Your task to perform on an android device: turn on data saver in the chrome app Image 0: 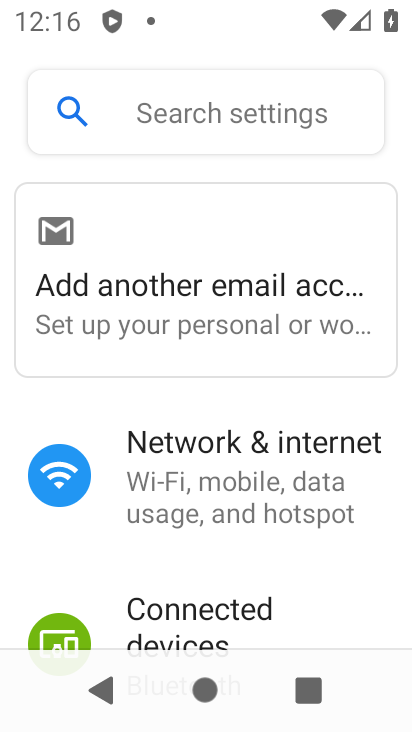
Step 0: press home button
Your task to perform on an android device: turn on data saver in the chrome app Image 1: 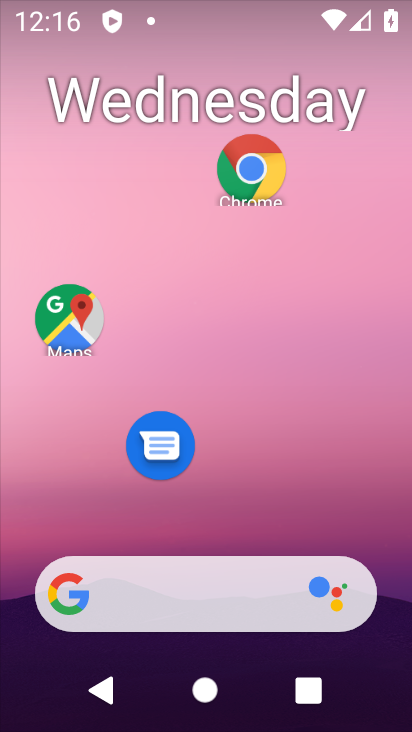
Step 1: drag from (233, 543) to (234, 252)
Your task to perform on an android device: turn on data saver in the chrome app Image 2: 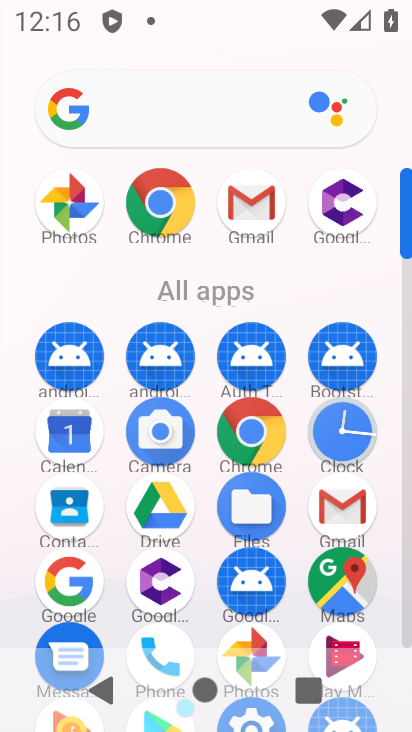
Step 2: click (150, 207)
Your task to perform on an android device: turn on data saver in the chrome app Image 3: 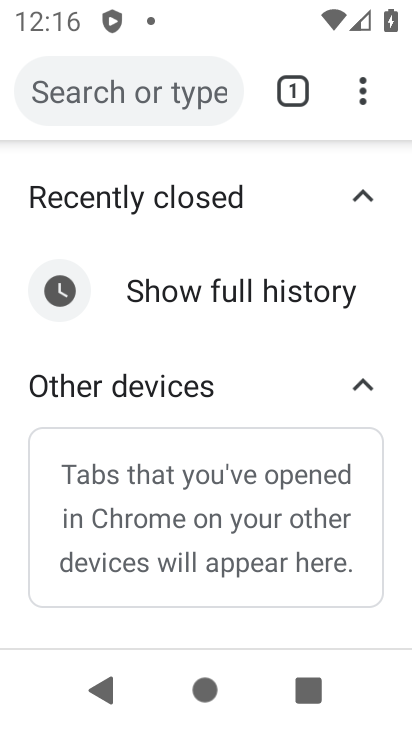
Step 3: click (356, 97)
Your task to perform on an android device: turn on data saver in the chrome app Image 4: 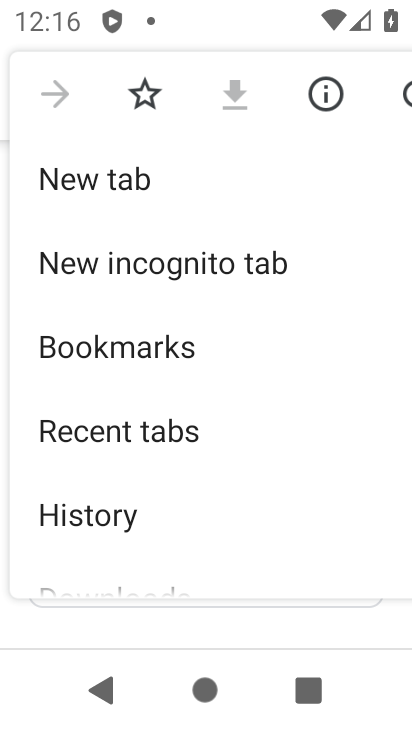
Step 4: drag from (138, 539) to (133, 413)
Your task to perform on an android device: turn on data saver in the chrome app Image 5: 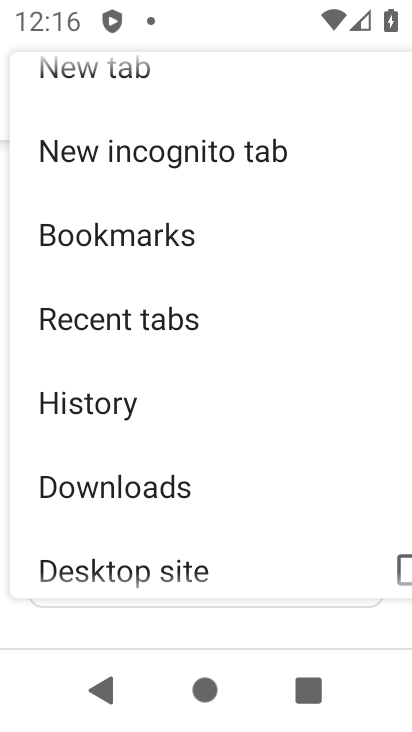
Step 5: drag from (146, 528) to (266, 340)
Your task to perform on an android device: turn on data saver in the chrome app Image 6: 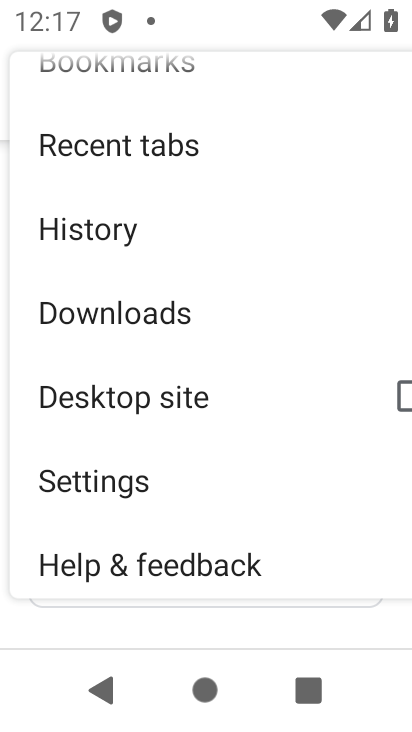
Step 6: click (95, 483)
Your task to perform on an android device: turn on data saver in the chrome app Image 7: 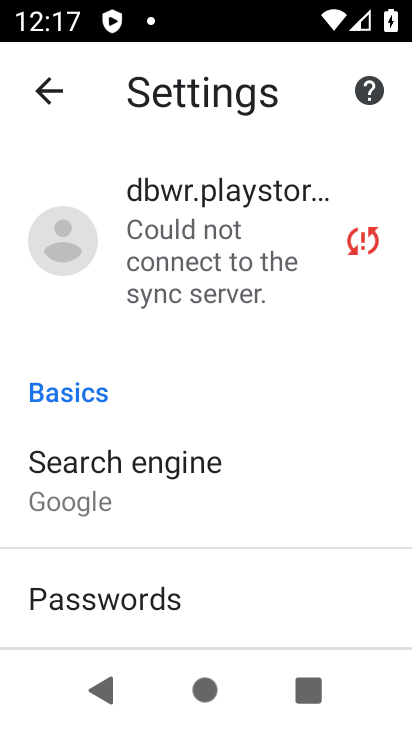
Step 7: drag from (195, 559) to (269, 166)
Your task to perform on an android device: turn on data saver in the chrome app Image 8: 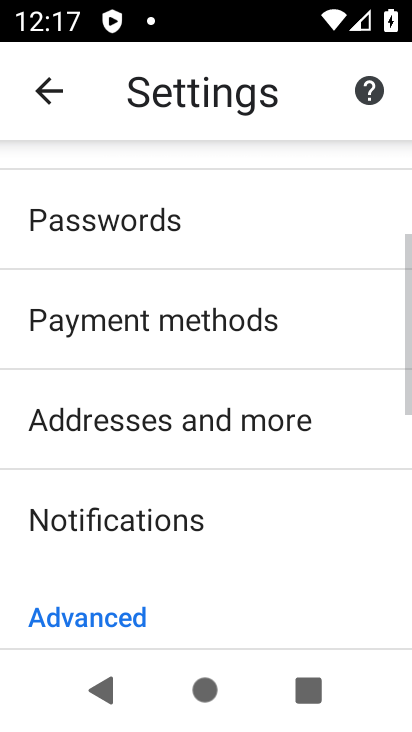
Step 8: drag from (177, 592) to (274, 279)
Your task to perform on an android device: turn on data saver in the chrome app Image 9: 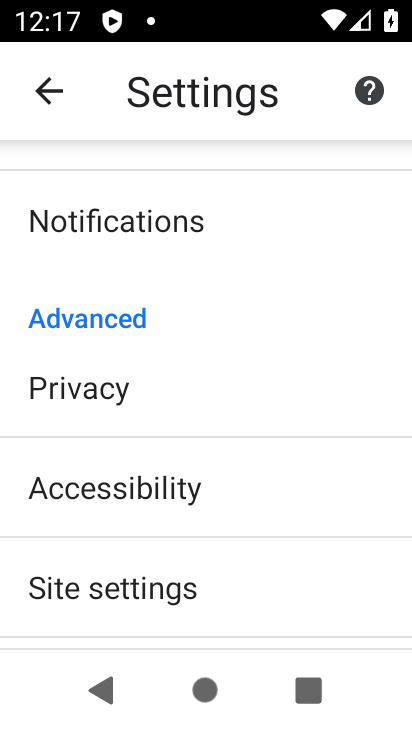
Step 9: drag from (149, 555) to (205, 359)
Your task to perform on an android device: turn on data saver in the chrome app Image 10: 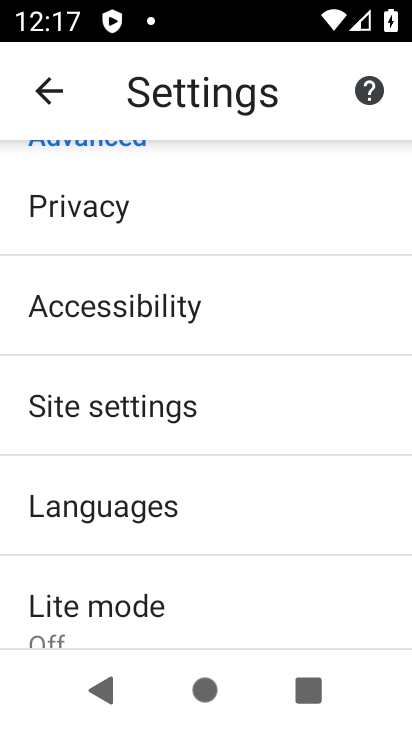
Step 10: drag from (175, 617) to (237, 333)
Your task to perform on an android device: turn on data saver in the chrome app Image 11: 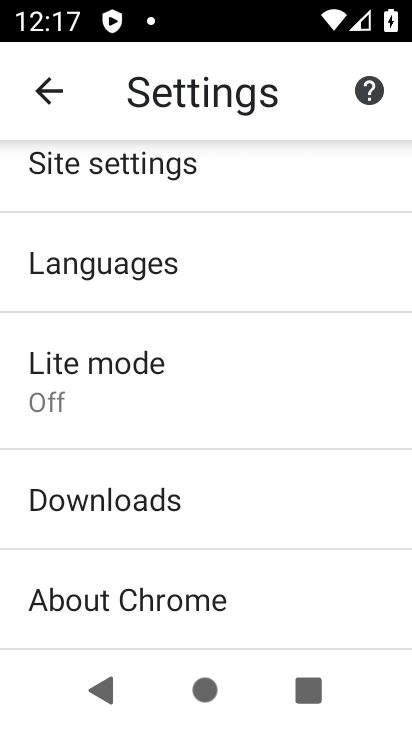
Step 11: click (114, 407)
Your task to perform on an android device: turn on data saver in the chrome app Image 12: 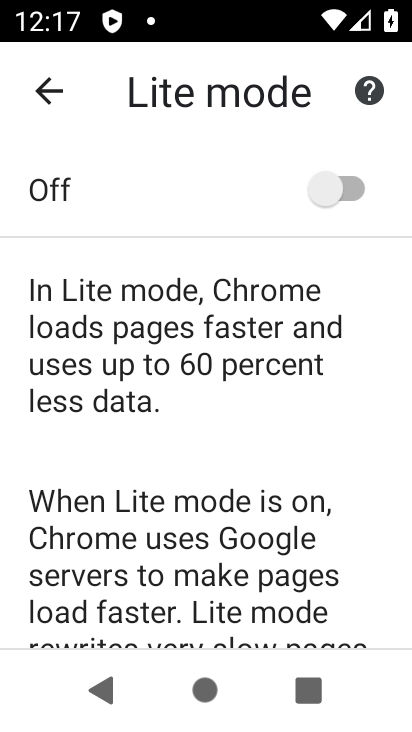
Step 12: click (350, 201)
Your task to perform on an android device: turn on data saver in the chrome app Image 13: 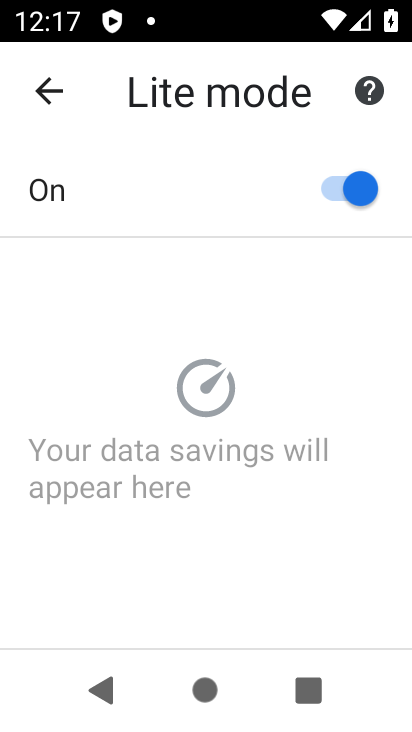
Step 13: task complete